Your task to perform on an android device: Open Amazon Image 0: 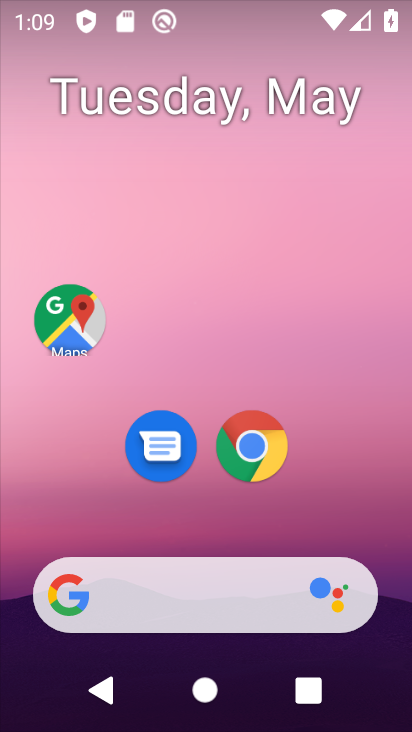
Step 0: drag from (248, 534) to (176, 15)
Your task to perform on an android device: Open Amazon Image 1: 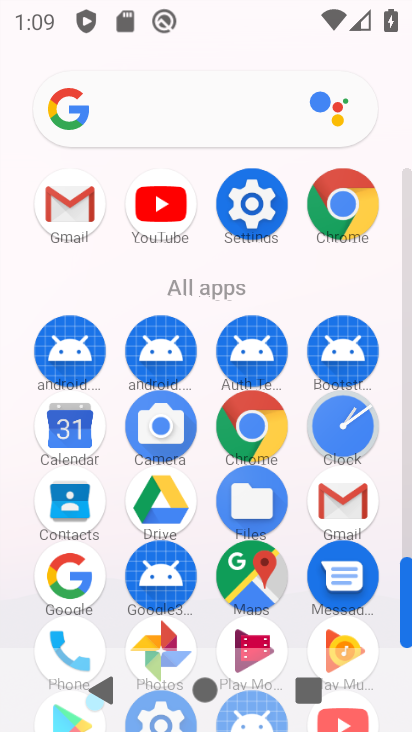
Step 1: click (347, 205)
Your task to perform on an android device: Open Amazon Image 2: 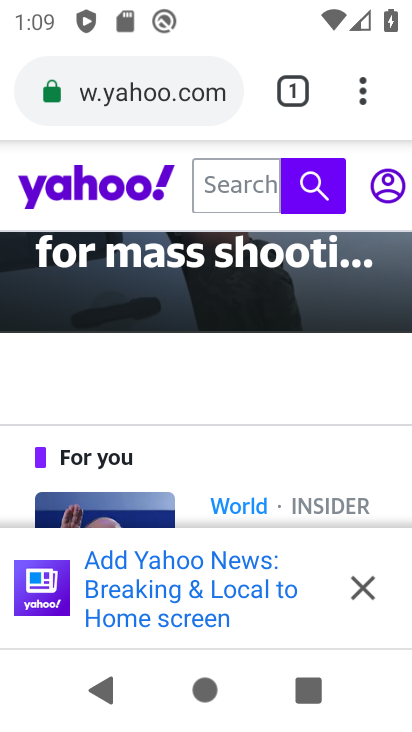
Step 2: click (286, 92)
Your task to perform on an android device: Open Amazon Image 3: 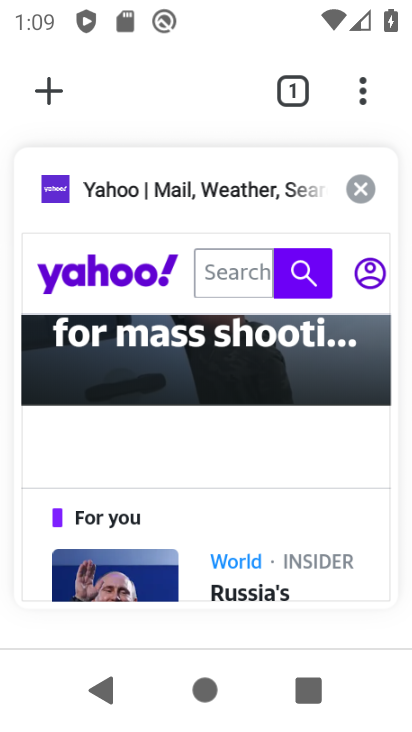
Step 3: click (61, 101)
Your task to perform on an android device: Open Amazon Image 4: 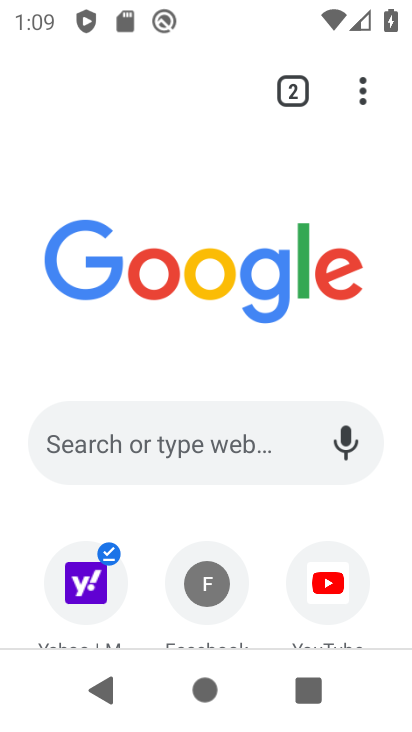
Step 4: drag from (171, 570) to (142, 161)
Your task to perform on an android device: Open Amazon Image 5: 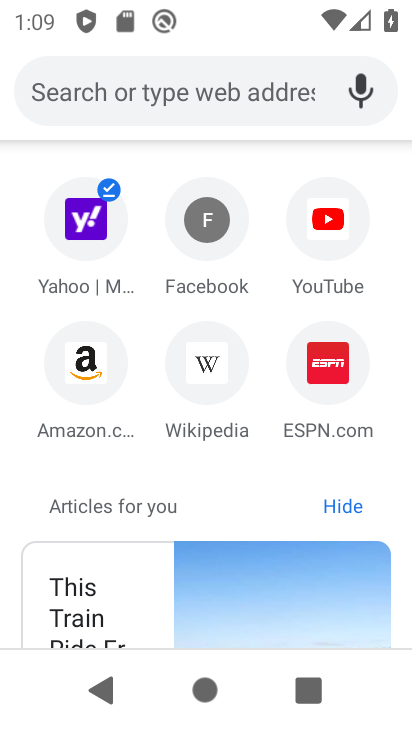
Step 5: click (69, 338)
Your task to perform on an android device: Open Amazon Image 6: 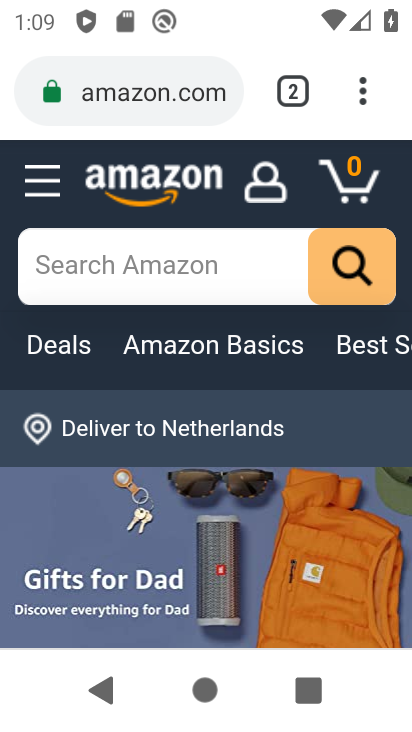
Step 6: task complete